Your task to perform on an android device: change notifications settings Image 0: 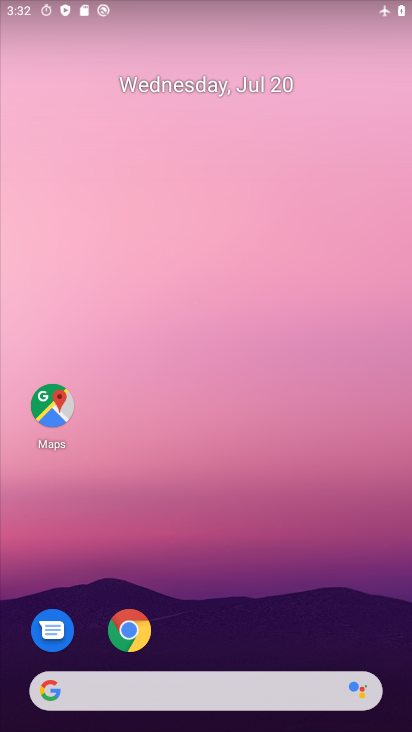
Step 0: press home button
Your task to perform on an android device: change notifications settings Image 1: 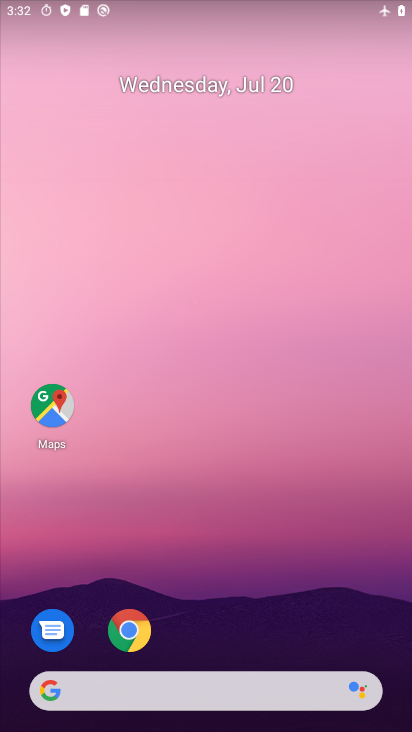
Step 1: drag from (218, 631) to (312, 25)
Your task to perform on an android device: change notifications settings Image 2: 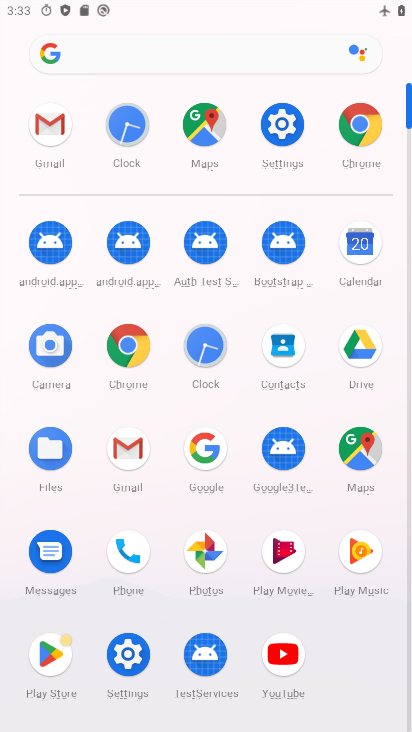
Step 2: click (270, 119)
Your task to perform on an android device: change notifications settings Image 3: 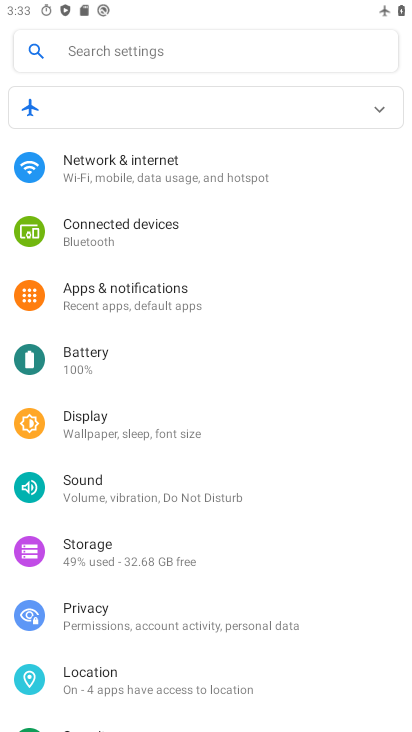
Step 3: click (116, 305)
Your task to perform on an android device: change notifications settings Image 4: 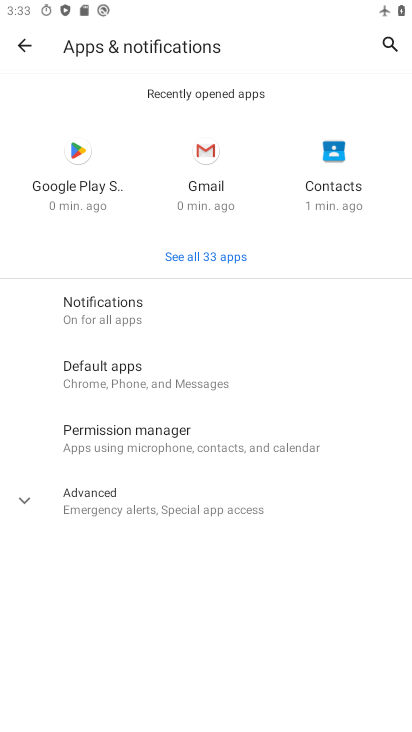
Step 4: click (85, 290)
Your task to perform on an android device: change notifications settings Image 5: 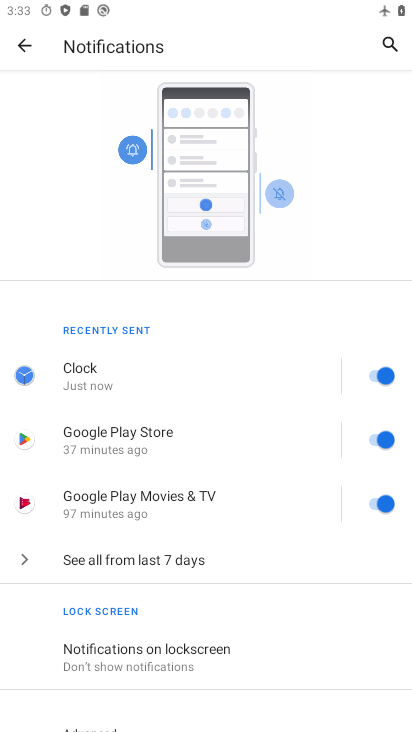
Step 5: drag from (299, 603) to (328, 10)
Your task to perform on an android device: change notifications settings Image 6: 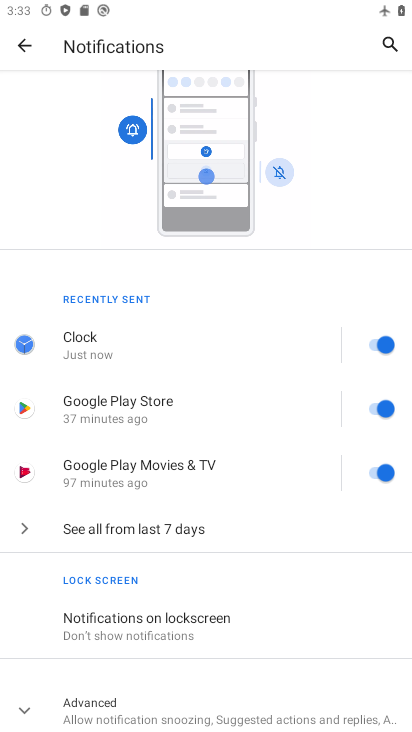
Step 6: click (114, 631)
Your task to perform on an android device: change notifications settings Image 7: 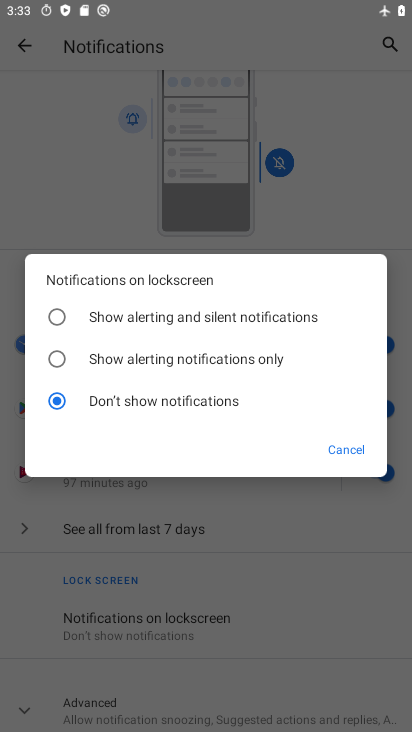
Step 7: click (59, 312)
Your task to perform on an android device: change notifications settings Image 8: 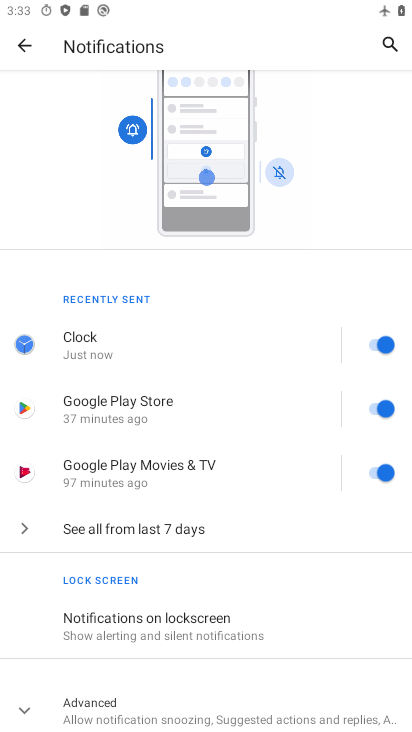
Step 8: click (59, 311)
Your task to perform on an android device: change notifications settings Image 9: 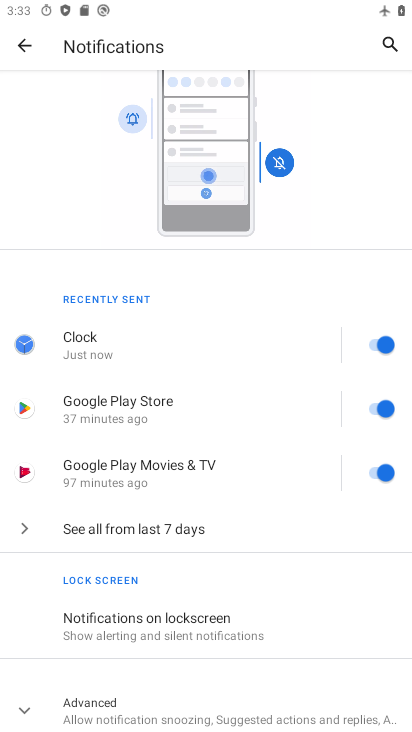
Step 9: click (90, 603)
Your task to perform on an android device: change notifications settings Image 10: 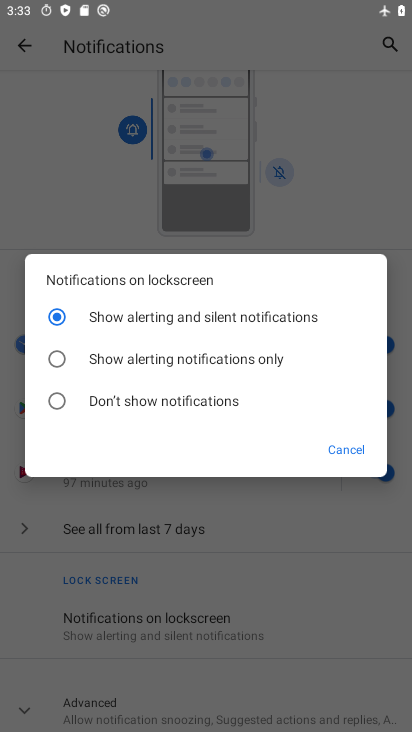
Step 10: task complete